Your task to perform on an android device: find snoozed emails in the gmail app Image 0: 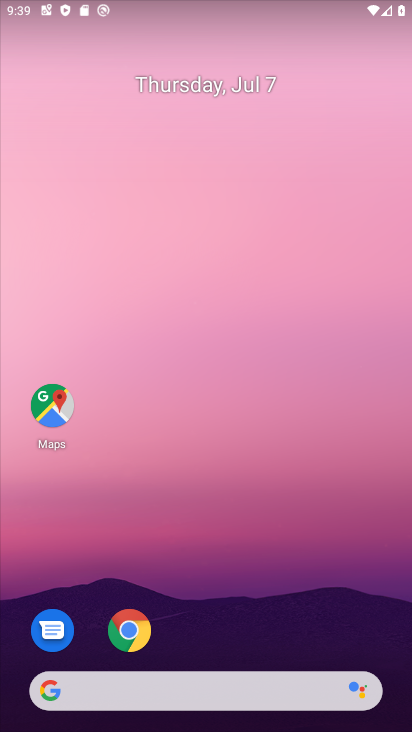
Step 0: press home button
Your task to perform on an android device: find snoozed emails in the gmail app Image 1: 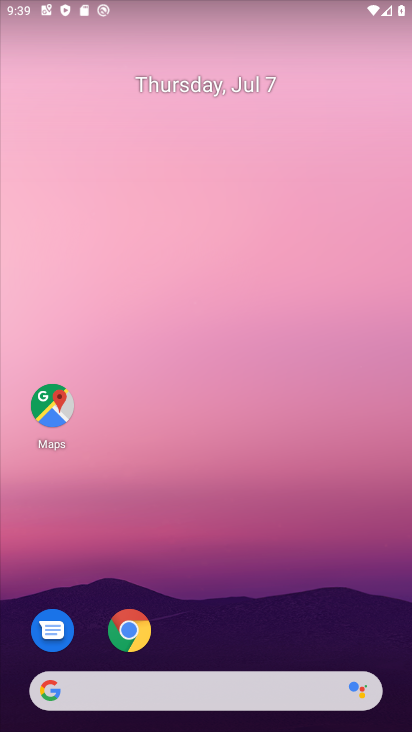
Step 1: drag from (204, 639) to (215, 48)
Your task to perform on an android device: find snoozed emails in the gmail app Image 2: 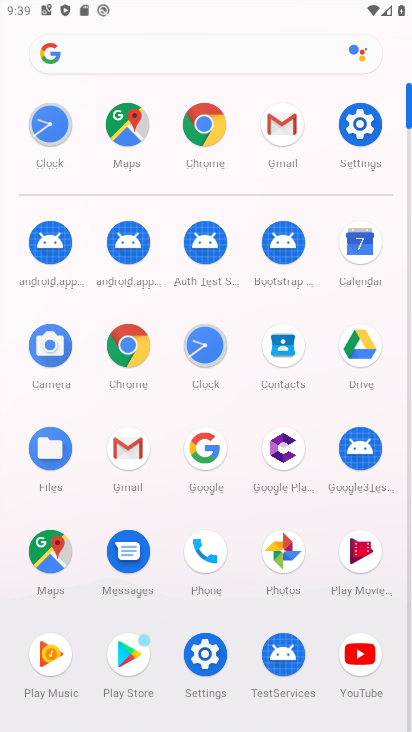
Step 2: click (271, 113)
Your task to perform on an android device: find snoozed emails in the gmail app Image 3: 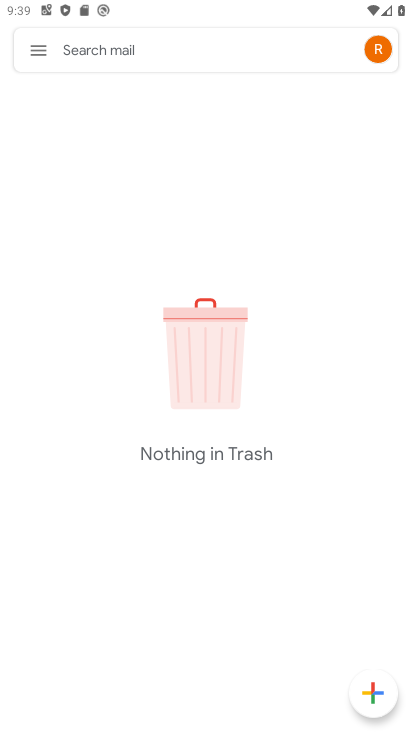
Step 3: click (34, 38)
Your task to perform on an android device: find snoozed emails in the gmail app Image 4: 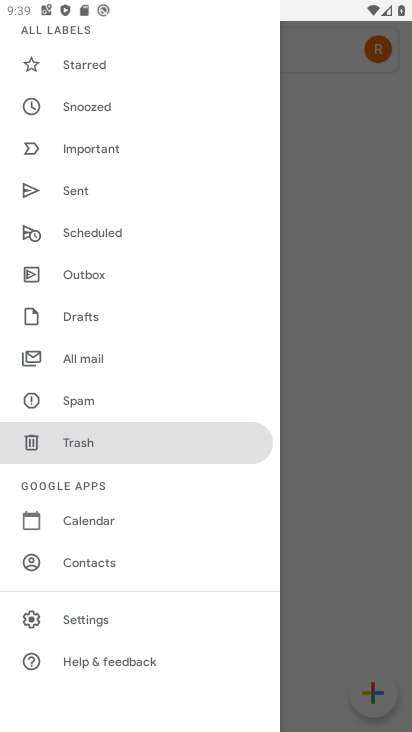
Step 4: click (78, 113)
Your task to perform on an android device: find snoozed emails in the gmail app Image 5: 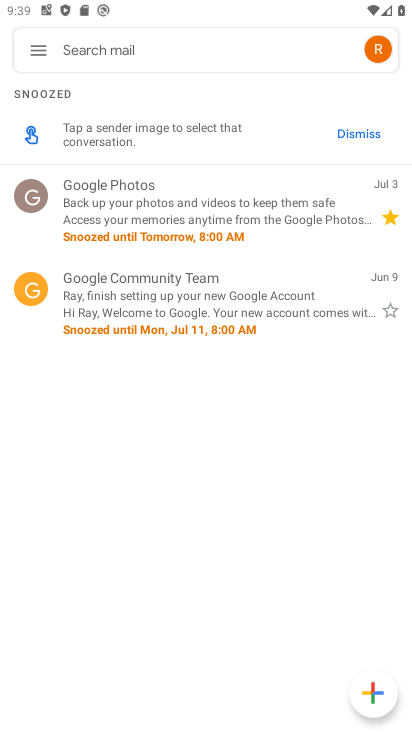
Step 5: task complete